Your task to perform on an android device: make emails show in primary in the gmail app Image 0: 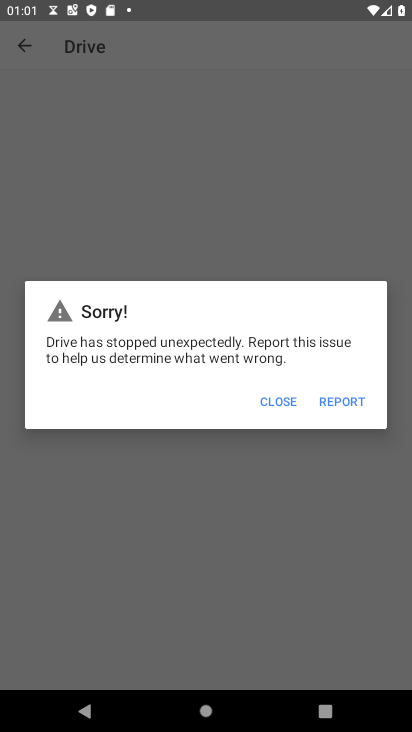
Step 0: press home button
Your task to perform on an android device: make emails show in primary in the gmail app Image 1: 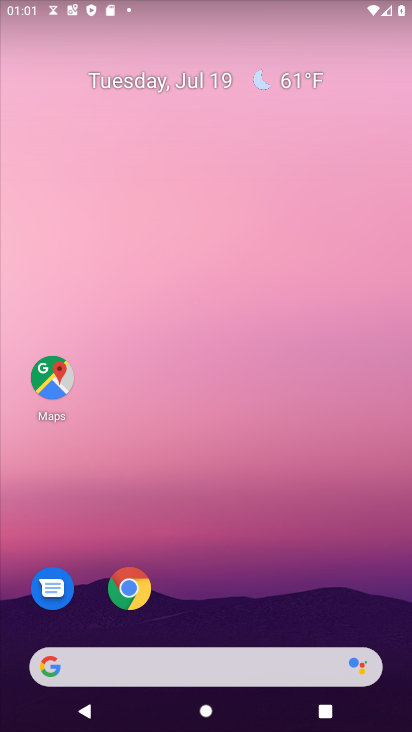
Step 1: drag from (292, 675) to (238, 186)
Your task to perform on an android device: make emails show in primary in the gmail app Image 2: 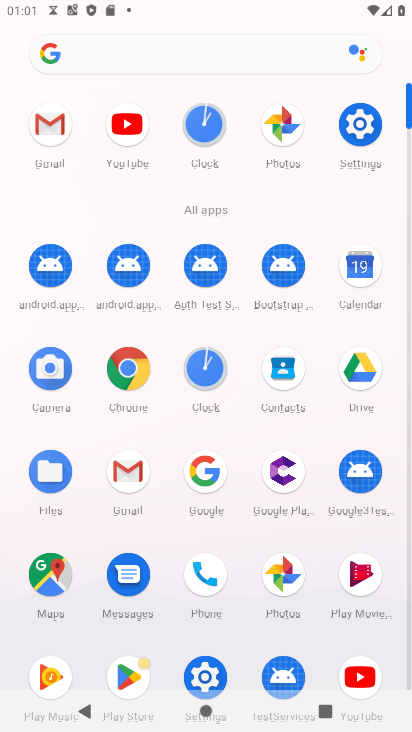
Step 2: click (137, 479)
Your task to perform on an android device: make emails show in primary in the gmail app Image 3: 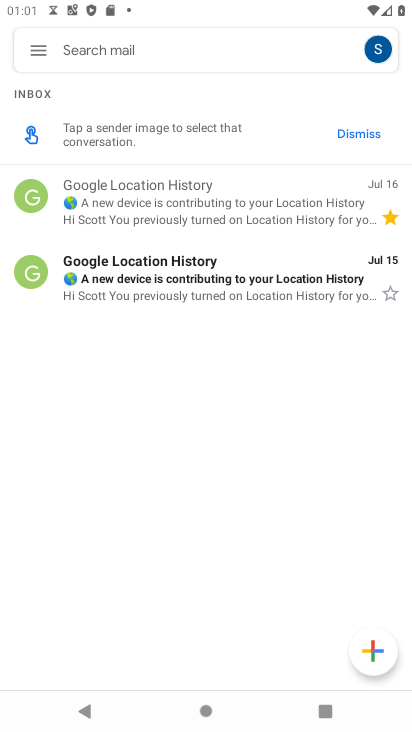
Step 3: click (36, 51)
Your task to perform on an android device: make emails show in primary in the gmail app Image 4: 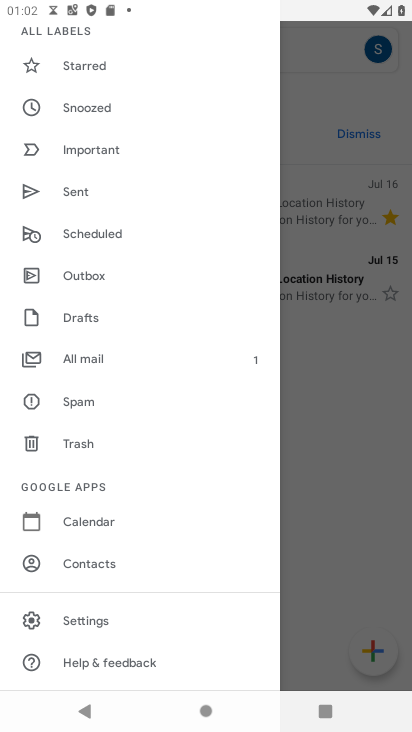
Step 4: click (111, 624)
Your task to perform on an android device: make emails show in primary in the gmail app Image 5: 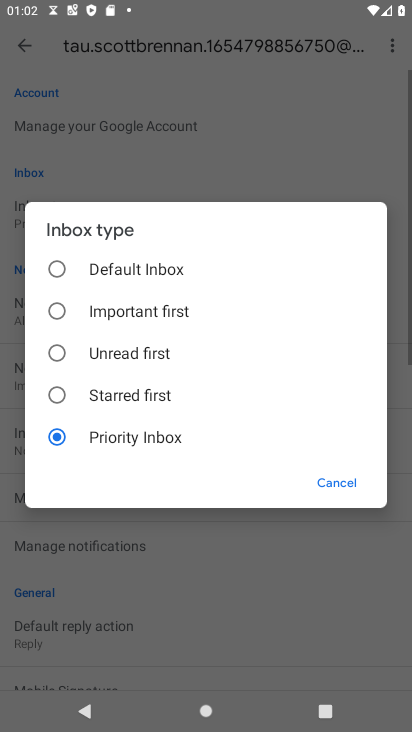
Step 5: click (152, 171)
Your task to perform on an android device: make emails show in primary in the gmail app Image 6: 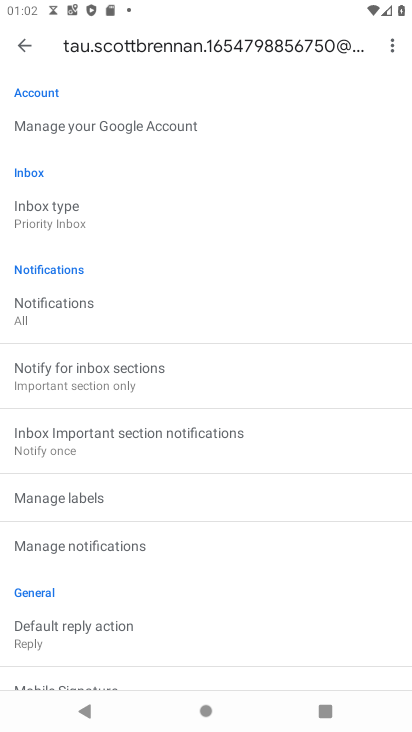
Step 6: click (104, 226)
Your task to perform on an android device: make emails show in primary in the gmail app Image 7: 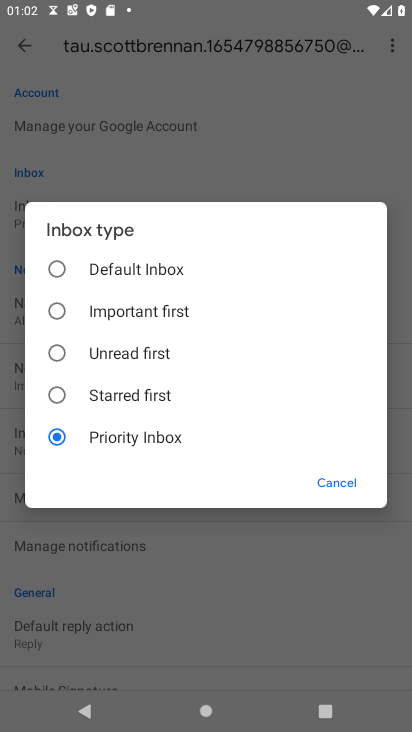
Step 7: click (63, 262)
Your task to perform on an android device: make emails show in primary in the gmail app Image 8: 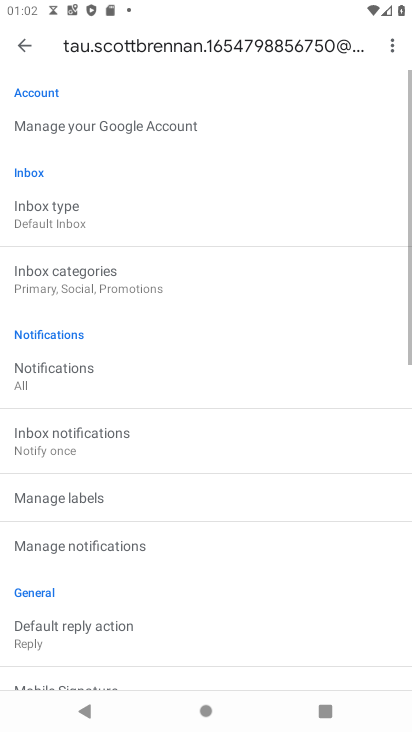
Step 8: click (80, 285)
Your task to perform on an android device: make emails show in primary in the gmail app Image 9: 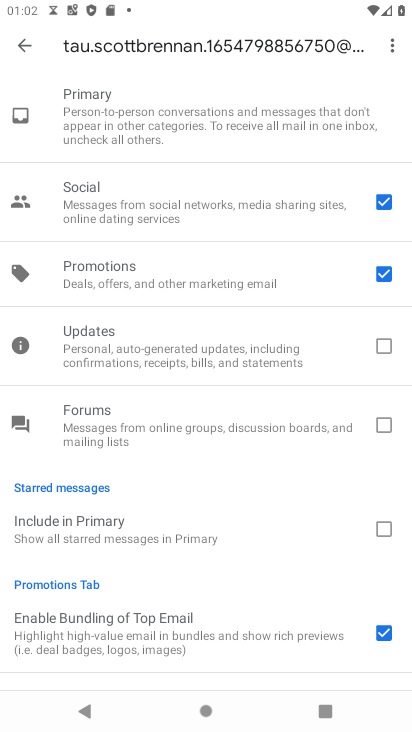
Step 9: click (150, 103)
Your task to perform on an android device: make emails show in primary in the gmail app Image 10: 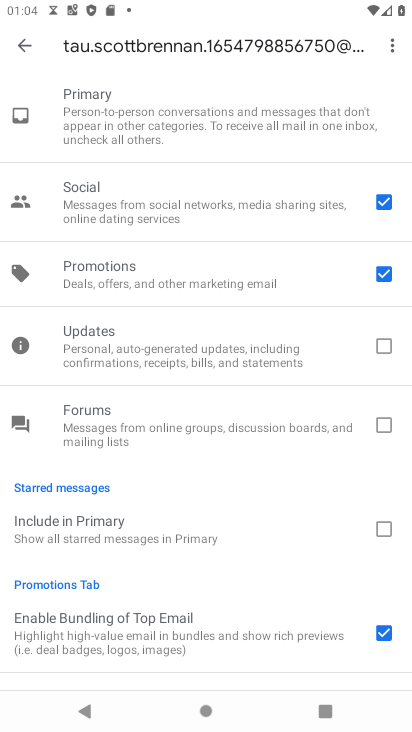
Step 10: task complete